Your task to perform on an android device: open sync settings in chrome Image 0: 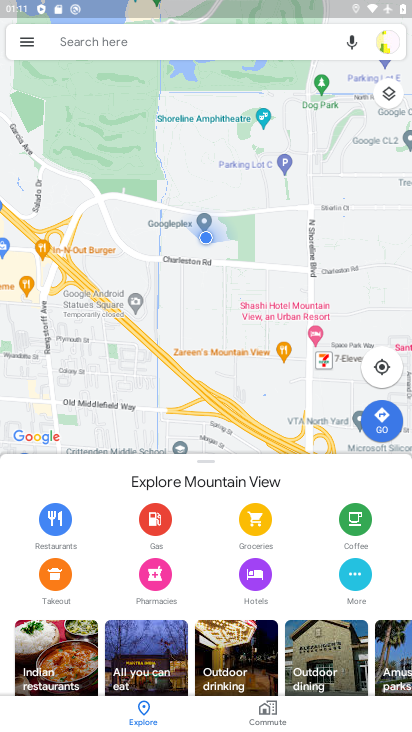
Step 0: press home button
Your task to perform on an android device: open sync settings in chrome Image 1: 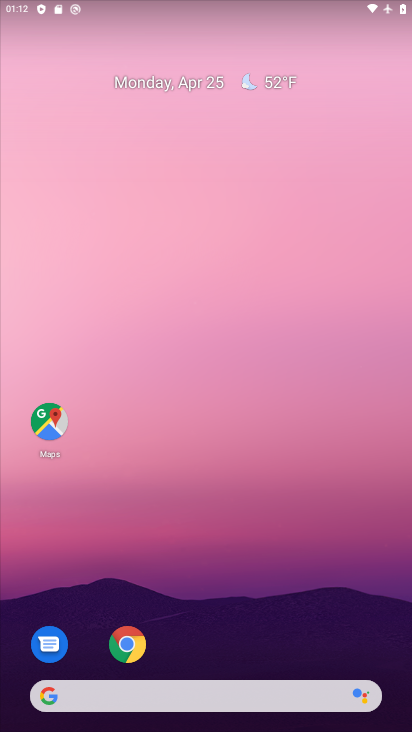
Step 1: click (131, 646)
Your task to perform on an android device: open sync settings in chrome Image 2: 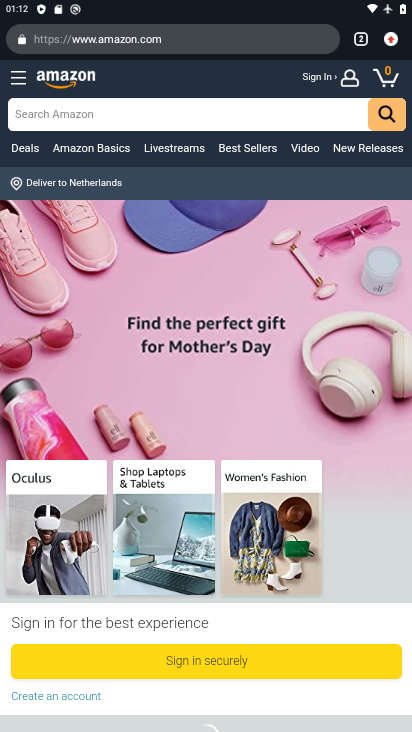
Step 2: click (384, 51)
Your task to perform on an android device: open sync settings in chrome Image 3: 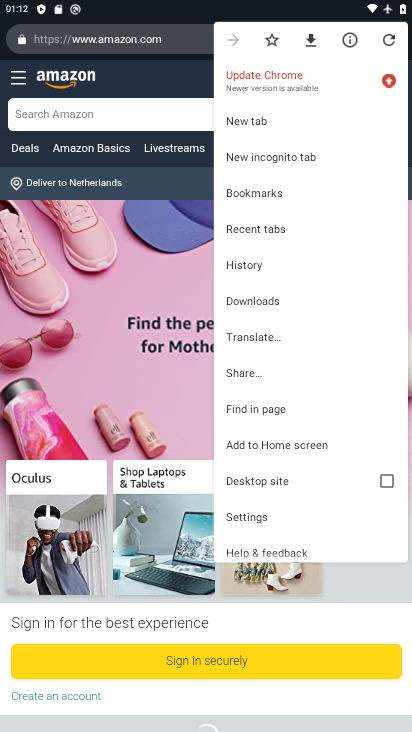
Step 3: click (262, 520)
Your task to perform on an android device: open sync settings in chrome Image 4: 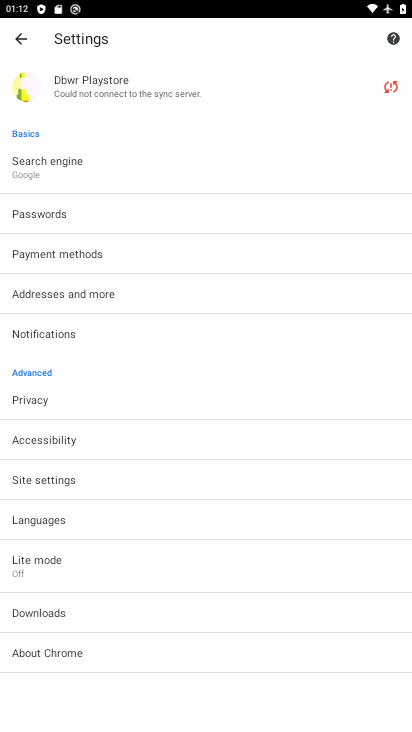
Step 4: click (172, 109)
Your task to perform on an android device: open sync settings in chrome Image 5: 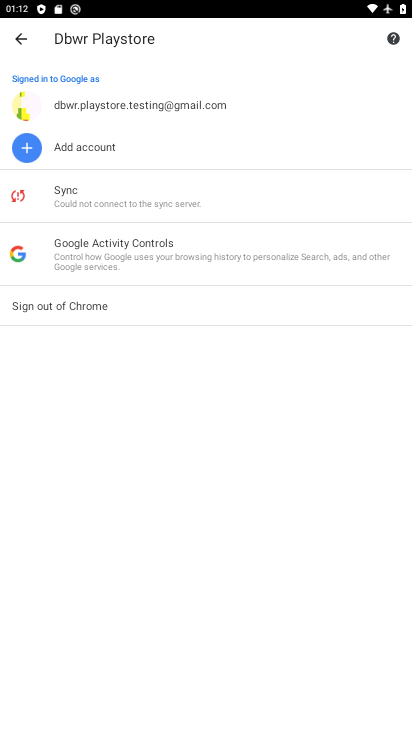
Step 5: task complete